Your task to perform on an android device: Open Google Chrome and click the shortcut for Amazon.com Image 0: 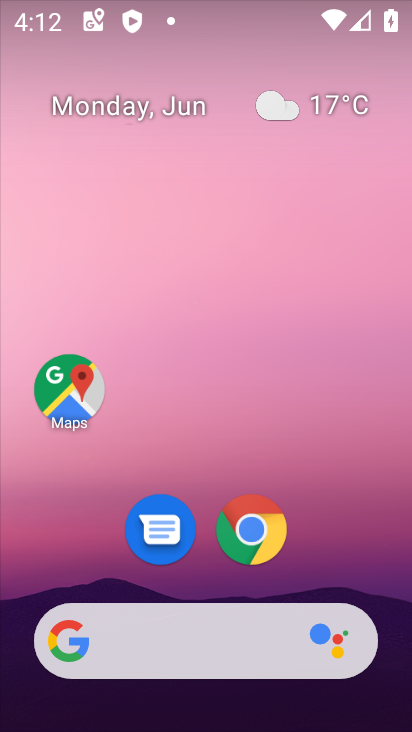
Step 0: click (250, 530)
Your task to perform on an android device: Open Google Chrome and click the shortcut for Amazon.com Image 1: 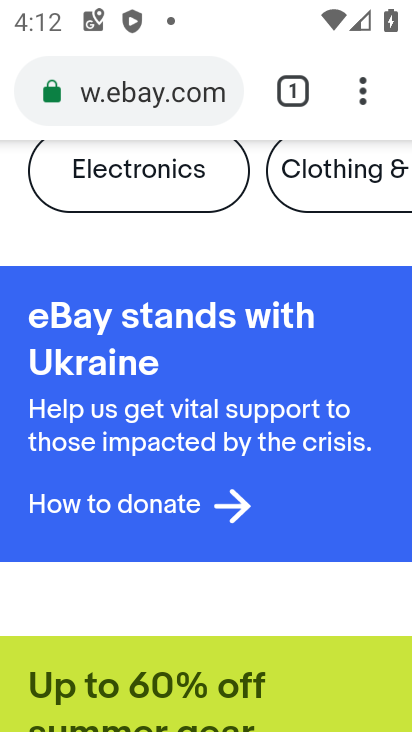
Step 1: click (228, 96)
Your task to perform on an android device: Open Google Chrome and click the shortcut for Amazon.com Image 2: 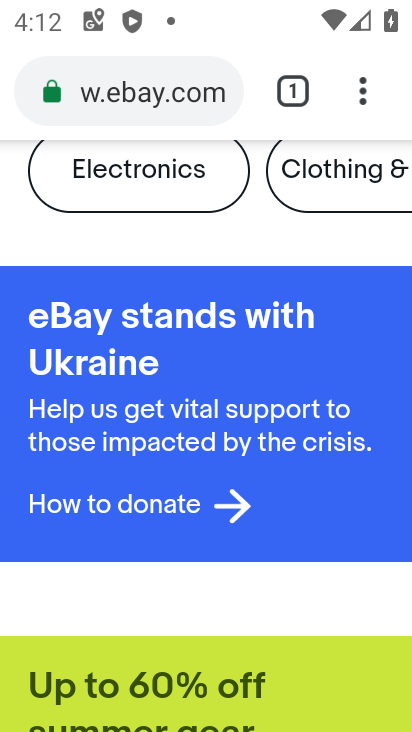
Step 2: click (207, 91)
Your task to perform on an android device: Open Google Chrome and click the shortcut for Amazon.com Image 3: 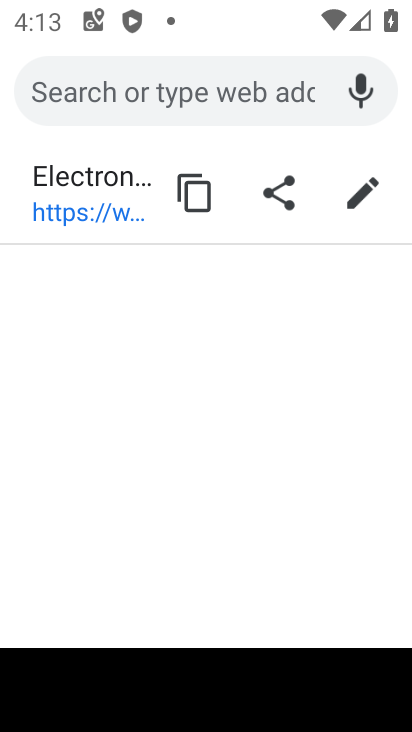
Step 3: type "Amazon.com"
Your task to perform on an android device: Open Google Chrome and click the shortcut for Amazon.com Image 4: 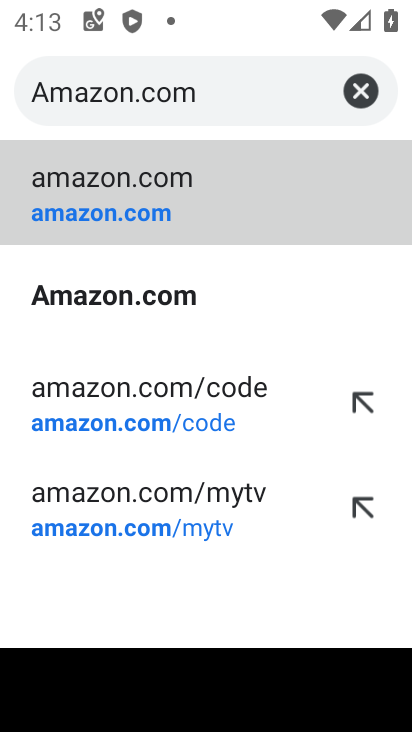
Step 4: click (170, 298)
Your task to perform on an android device: Open Google Chrome and click the shortcut for Amazon.com Image 5: 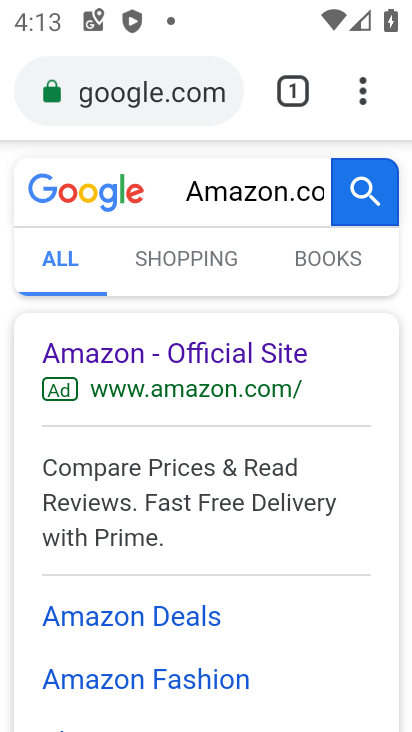
Step 5: drag from (190, 603) to (262, 354)
Your task to perform on an android device: Open Google Chrome and click the shortcut for Amazon.com Image 6: 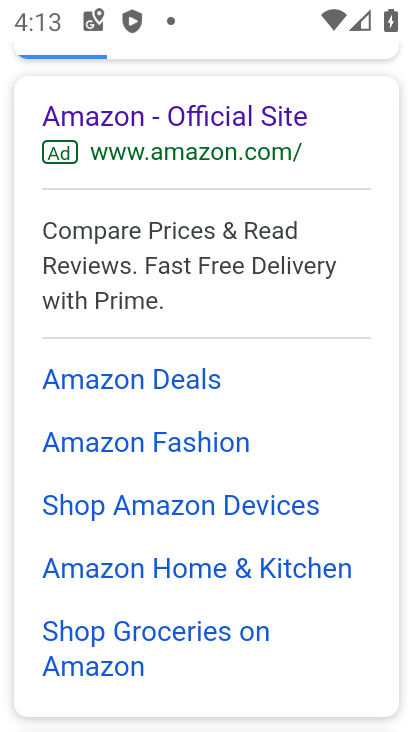
Step 6: drag from (225, 671) to (341, 371)
Your task to perform on an android device: Open Google Chrome and click the shortcut for Amazon.com Image 7: 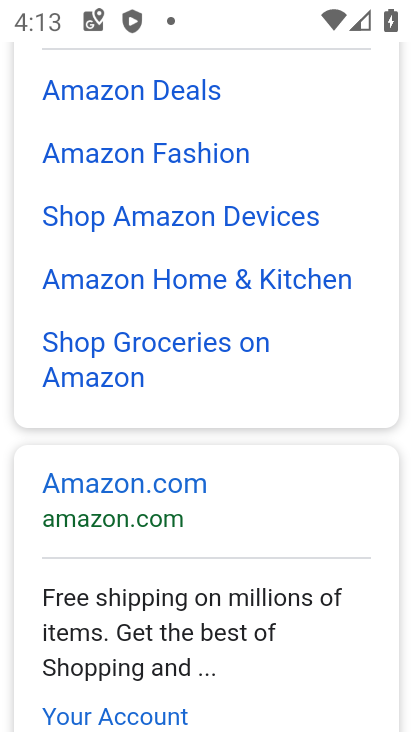
Step 7: click (186, 516)
Your task to perform on an android device: Open Google Chrome and click the shortcut for Amazon.com Image 8: 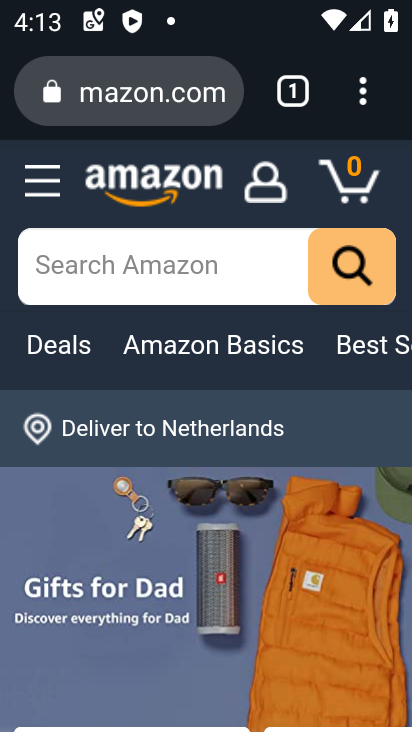
Step 8: click (364, 92)
Your task to perform on an android device: Open Google Chrome and click the shortcut for Amazon.com Image 9: 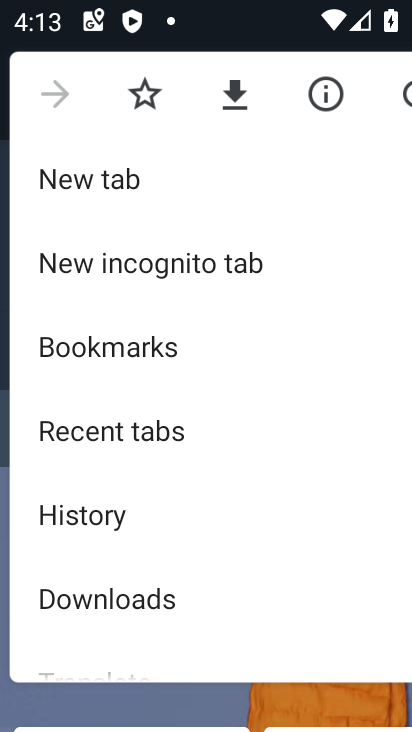
Step 9: drag from (108, 542) to (167, 350)
Your task to perform on an android device: Open Google Chrome and click the shortcut for Amazon.com Image 10: 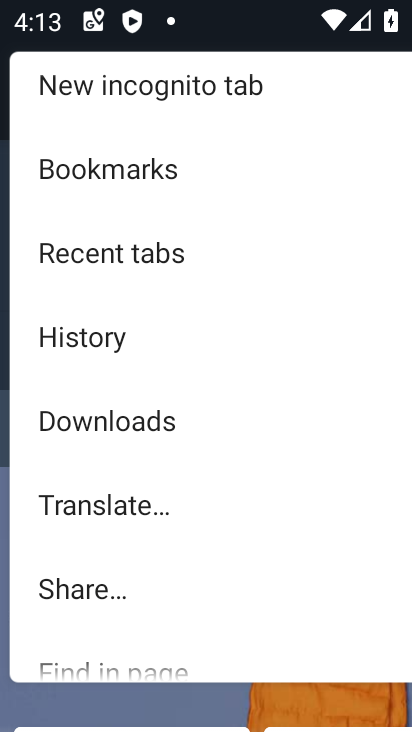
Step 10: drag from (158, 554) to (164, 390)
Your task to perform on an android device: Open Google Chrome and click the shortcut for Amazon.com Image 11: 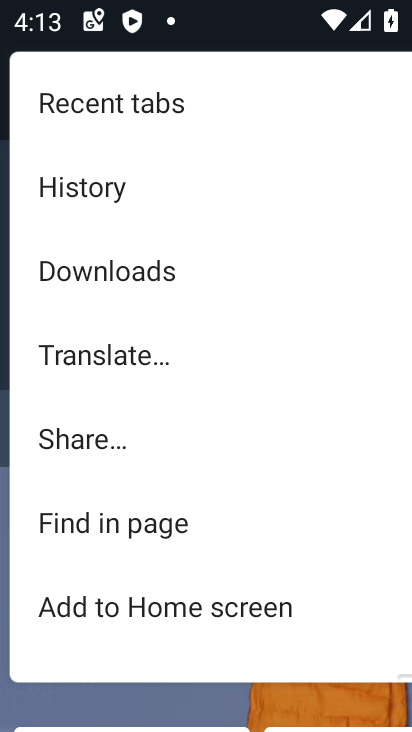
Step 11: drag from (155, 615) to (199, 439)
Your task to perform on an android device: Open Google Chrome and click the shortcut for Amazon.com Image 12: 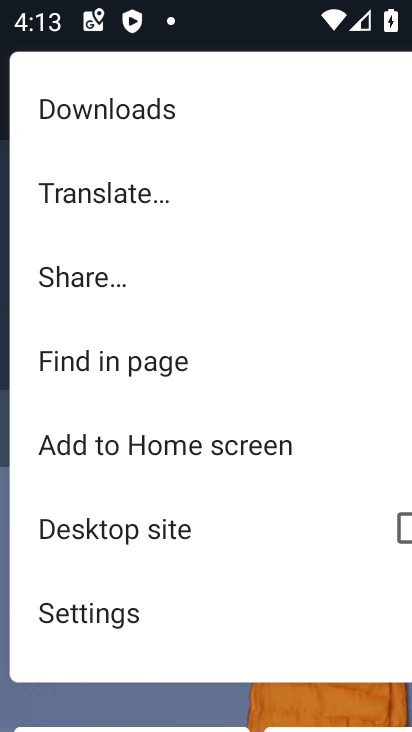
Step 12: click (203, 449)
Your task to perform on an android device: Open Google Chrome and click the shortcut for Amazon.com Image 13: 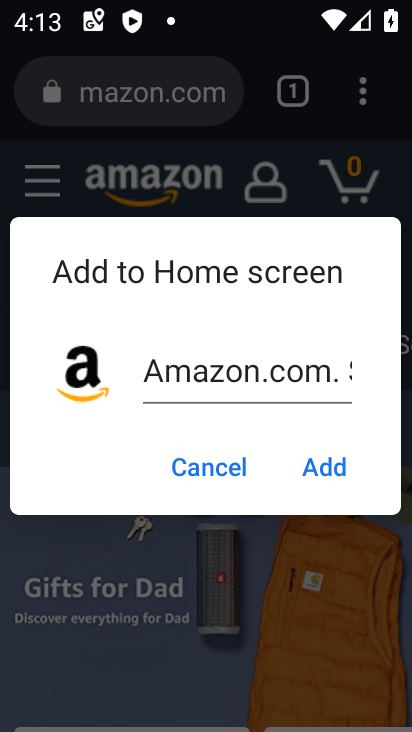
Step 13: click (318, 466)
Your task to perform on an android device: Open Google Chrome and click the shortcut for Amazon.com Image 14: 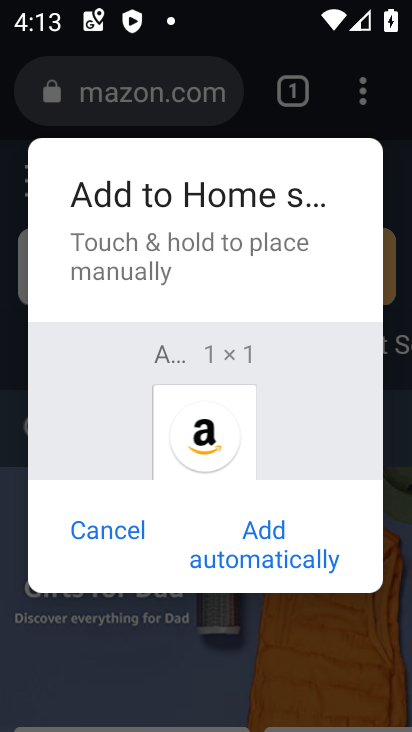
Step 14: click (265, 553)
Your task to perform on an android device: Open Google Chrome and click the shortcut for Amazon.com Image 15: 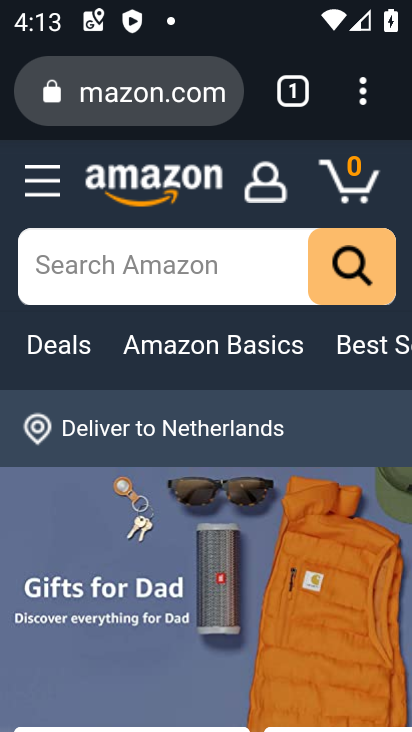
Step 15: task complete